Your task to perform on an android device: Open Reddit.com Image 0: 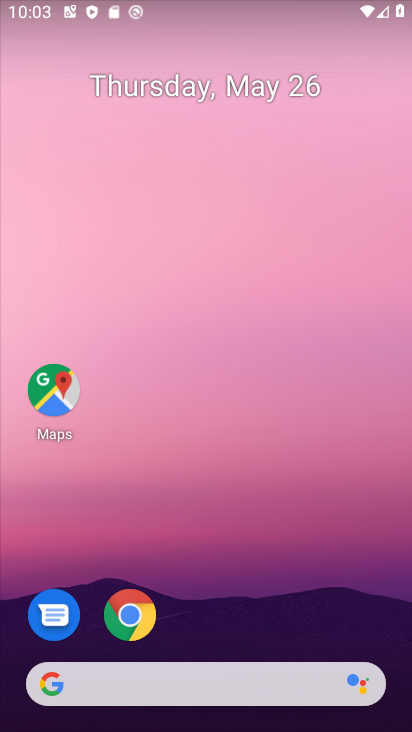
Step 0: drag from (338, 645) to (373, 157)
Your task to perform on an android device: Open Reddit.com Image 1: 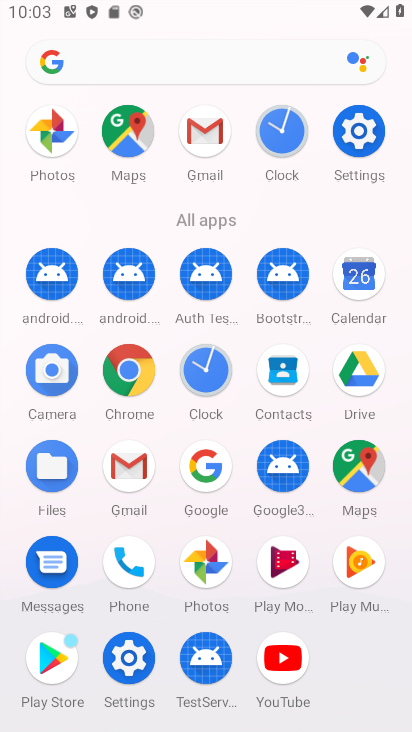
Step 1: click (125, 343)
Your task to perform on an android device: Open Reddit.com Image 2: 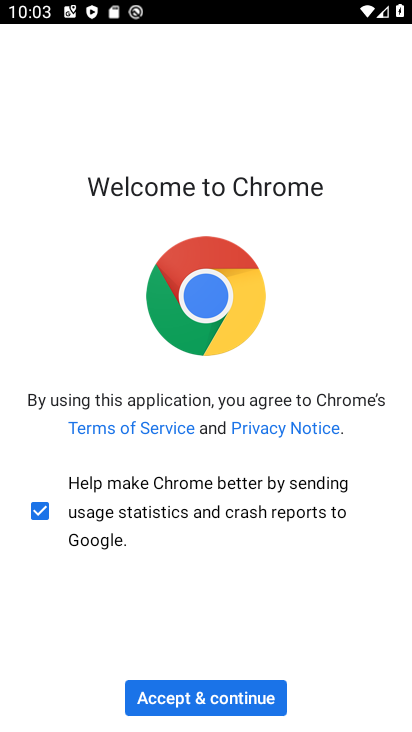
Step 2: click (236, 696)
Your task to perform on an android device: Open Reddit.com Image 3: 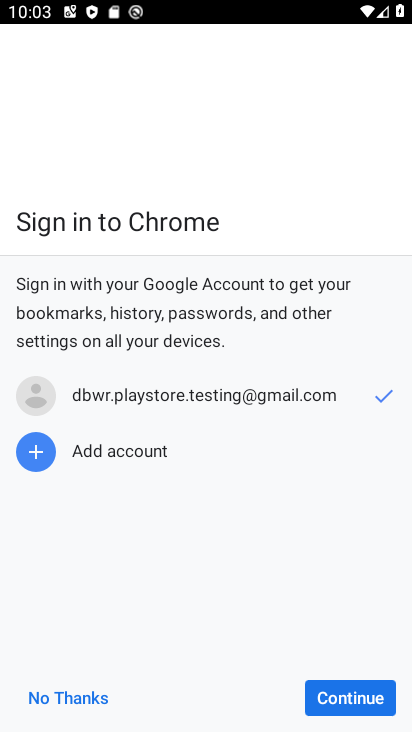
Step 3: click (82, 693)
Your task to perform on an android device: Open Reddit.com Image 4: 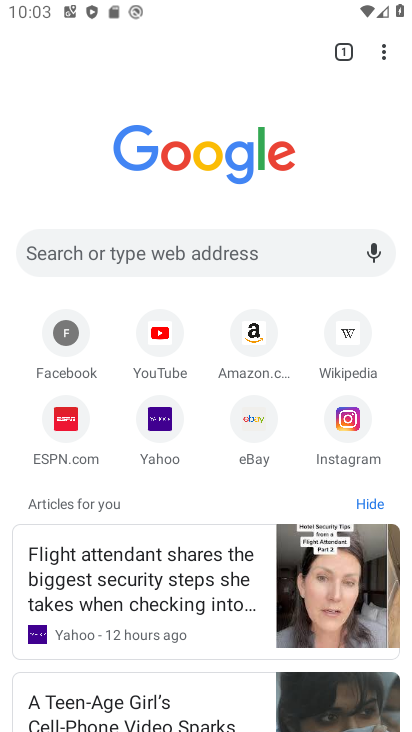
Step 4: click (181, 257)
Your task to perform on an android device: Open Reddit.com Image 5: 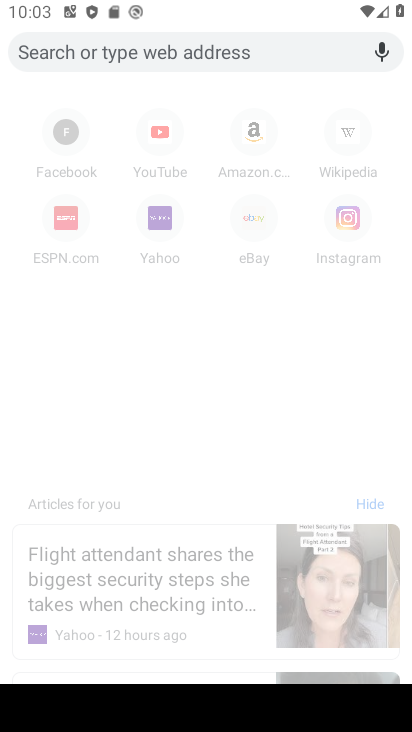
Step 5: type "reddit.com"
Your task to perform on an android device: Open Reddit.com Image 6: 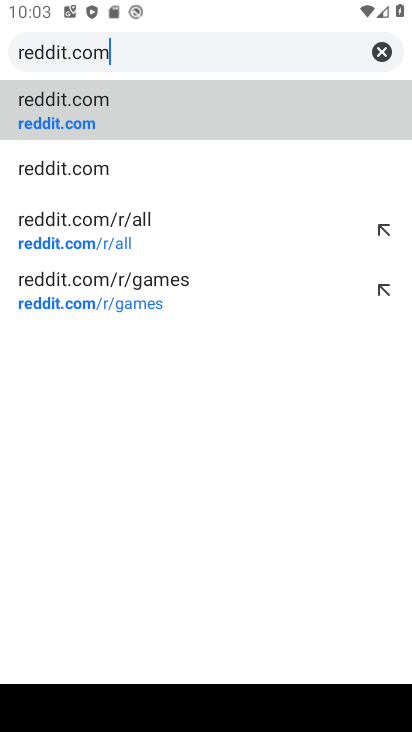
Step 6: click (75, 113)
Your task to perform on an android device: Open Reddit.com Image 7: 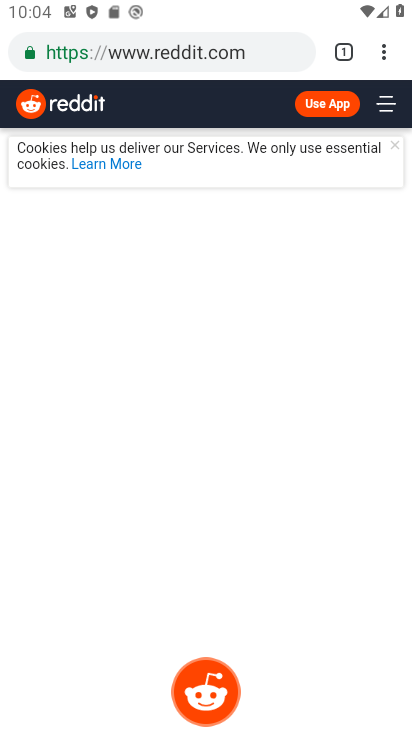
Step 7: task complete